Your task to perform on an android device: turn on location history Image 0: 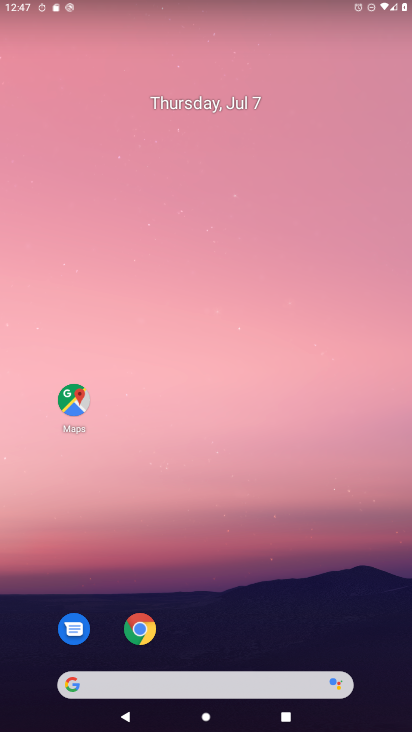
Step 0: drag from (182, 645) to (196, 272)
Your task to perform on an android device: turn on location history Image 1: 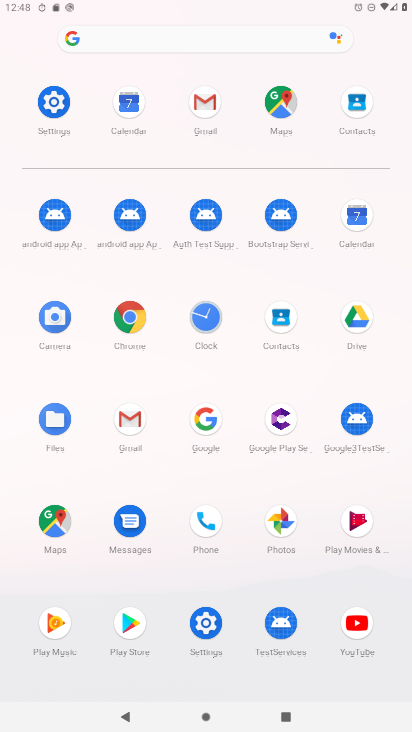
Step 1: click (63, 90)
Your task to perform on an android device: turn on location history Image 2: 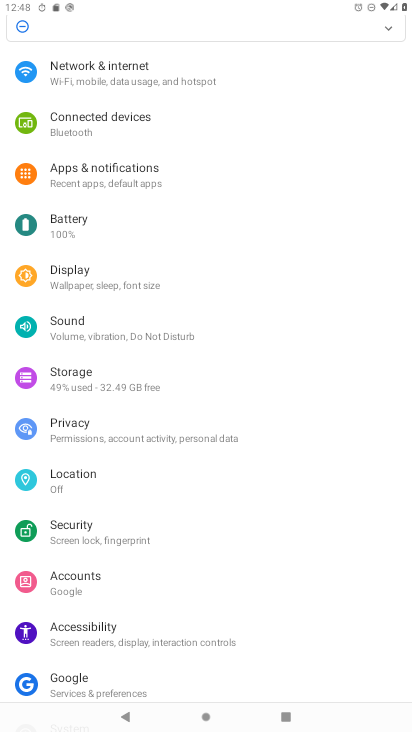
Step 2: click (120, 484)
Your task to perform on an android device: turn on location history Image 3: 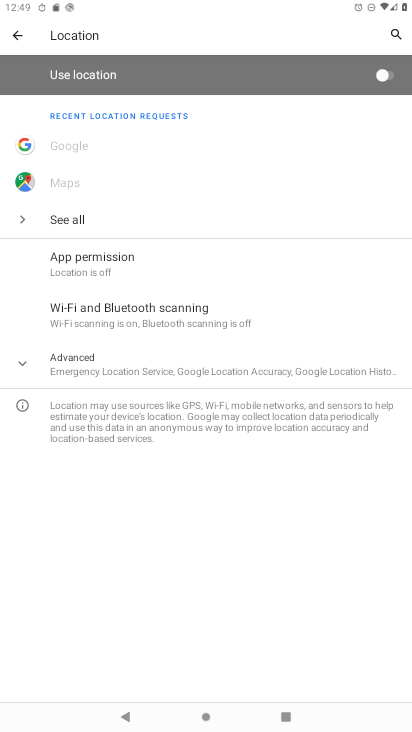
Step 3: click (188, 357)
Your task to perform on an android device: turn on location history Image 4: 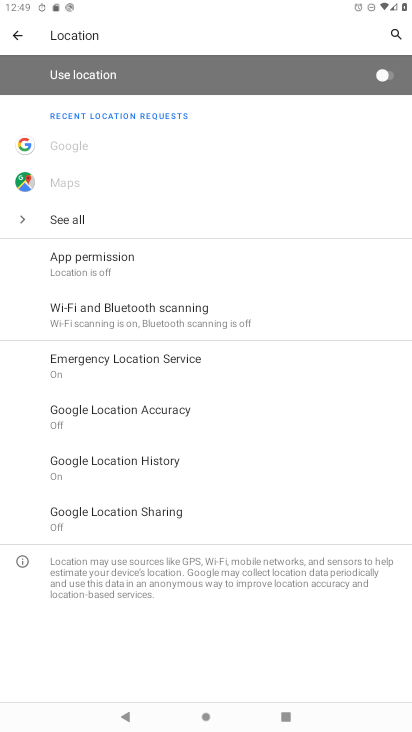
Step 4: click (172, 462)
Your task to perform on an android device: turn on location history Image 5: 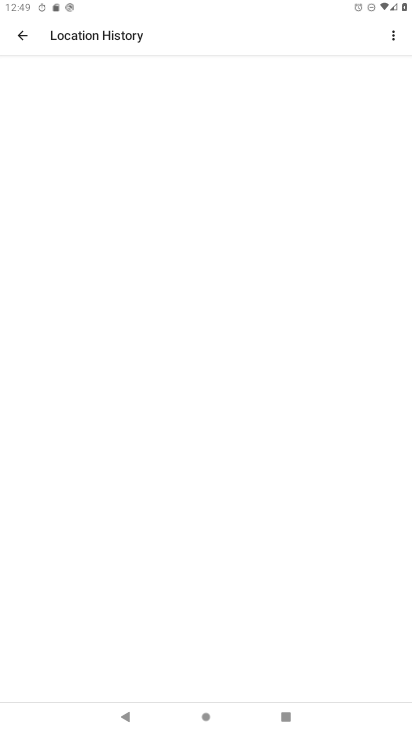
Step 5: task complete